Your task to perform on an android device: toggle notifications settings in the gmail app Image 0: 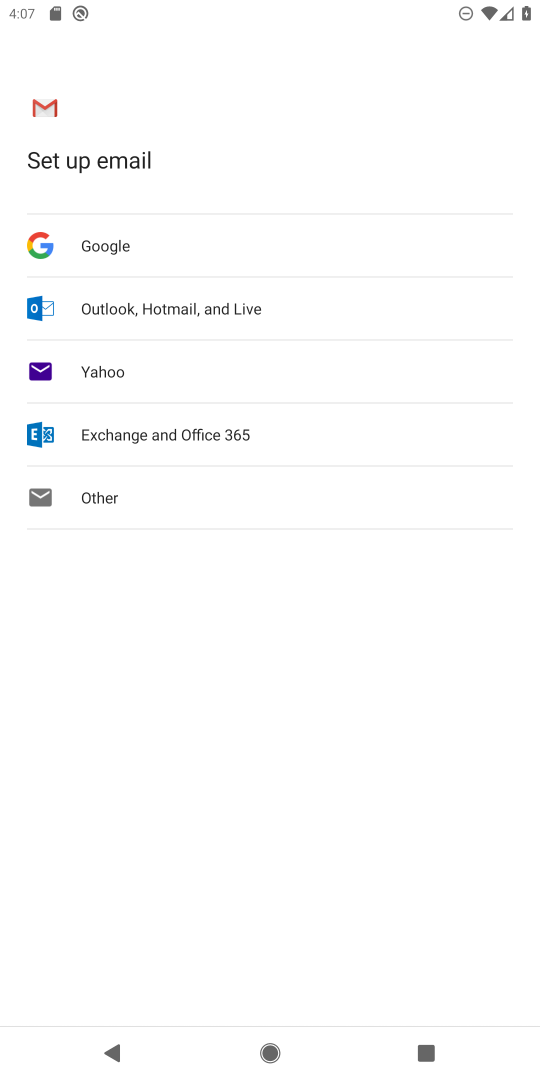
Step 0: press home button
Your task to perform on an android device: toggle notifications settings in the gmail app Image 1: 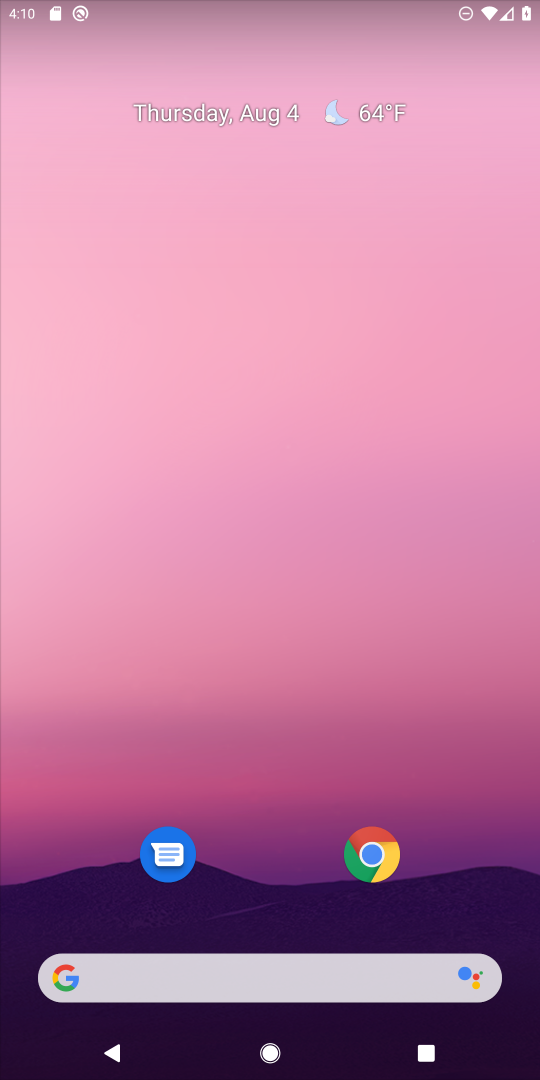
Step 1: drag from (295, 630) to (314, 225)
Your task to perform on an android device: toggle notifications settings in the gmail app Image 2: 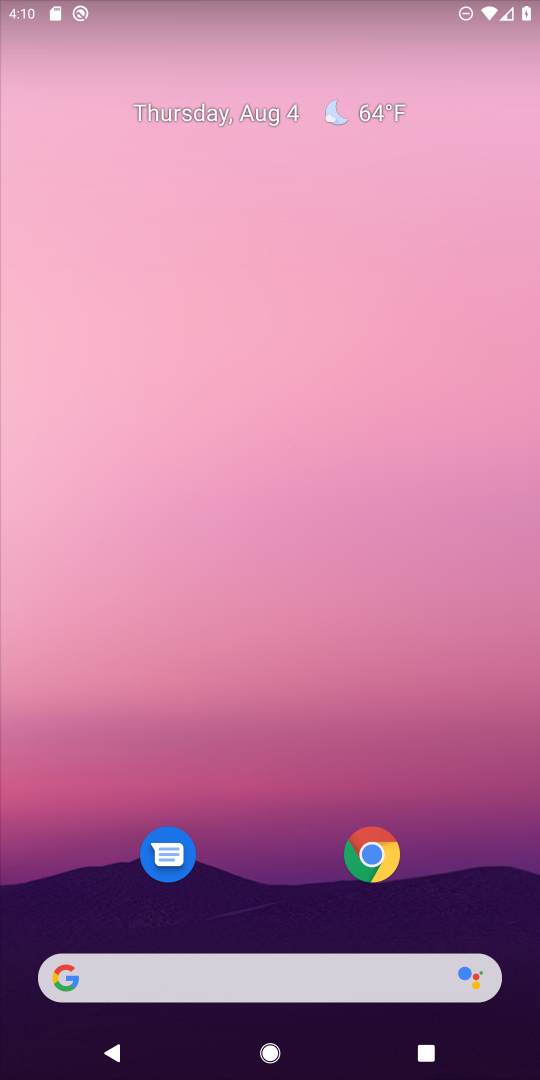
Step 2: drag from (273, 758) to (325, 161)
Your task to perform on an android device: toggle notifications settings in the gmail app Image 3: 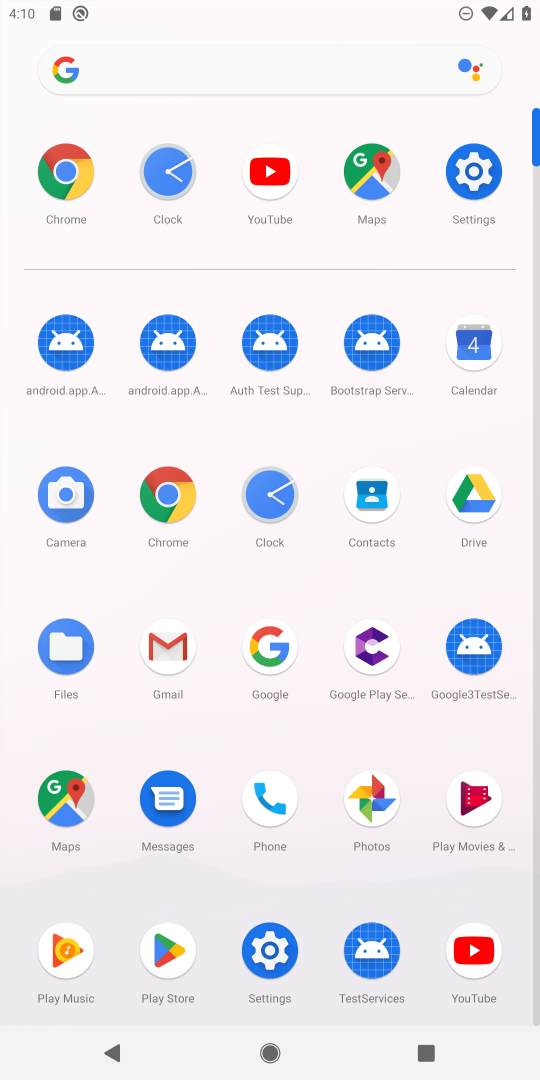
Step 3: click (167, 650)
Your task to perform on an android device: toggle notifications settings in the gmail app Image 4: 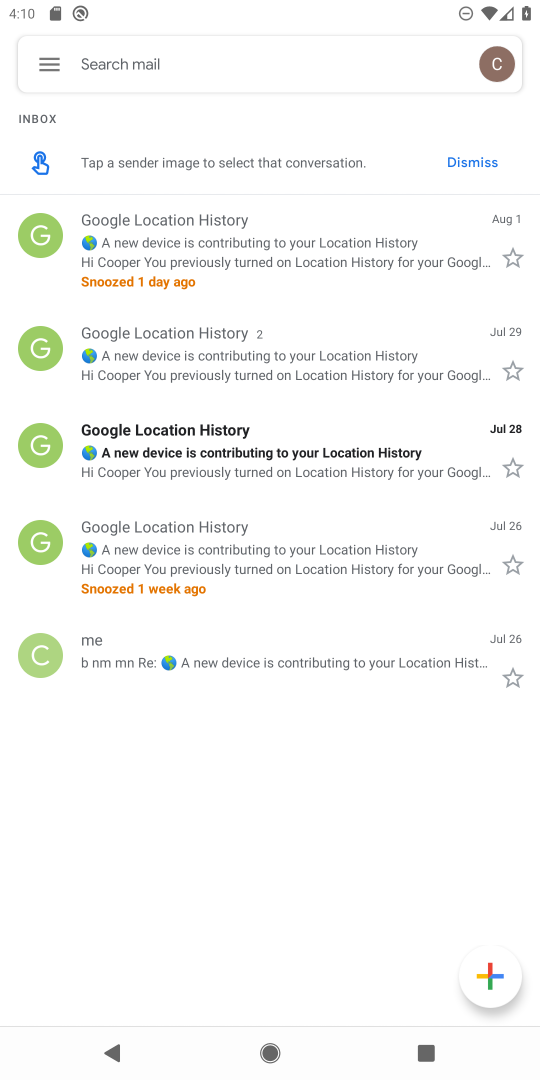
Step 4: task complete